Your task to perform on an android device: Open the calendar app, open the side menu, and click the "Day" option Image 0: 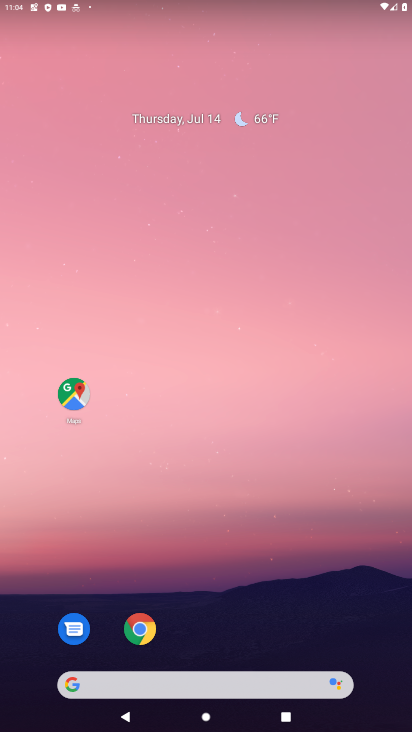
Step 0: press home button
Your task to perform on an android device: Open the calendar app, open the side menu, and click the "Day" option Image 1: 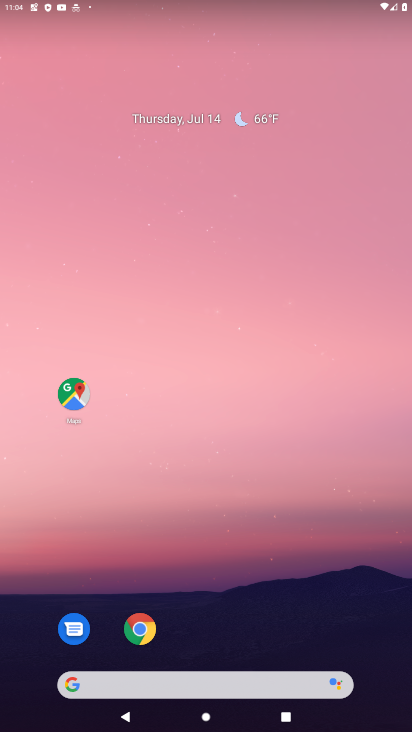
Step 1: drag from (284, 481) to (257, 91)
Your task to perform on an android device: Open the calendar app, open the side menu, and click the "Day" option Image 2: 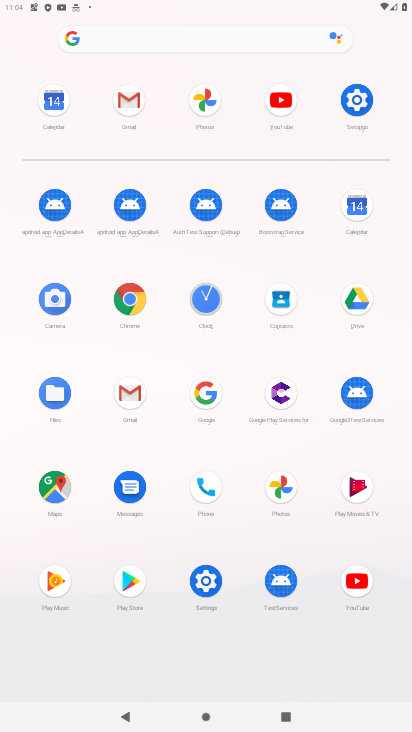
Step 2: click (349, 203)
Your task to perform on an android device: Open the calendar app, open the side menu, and click the "Day" option Image 3: 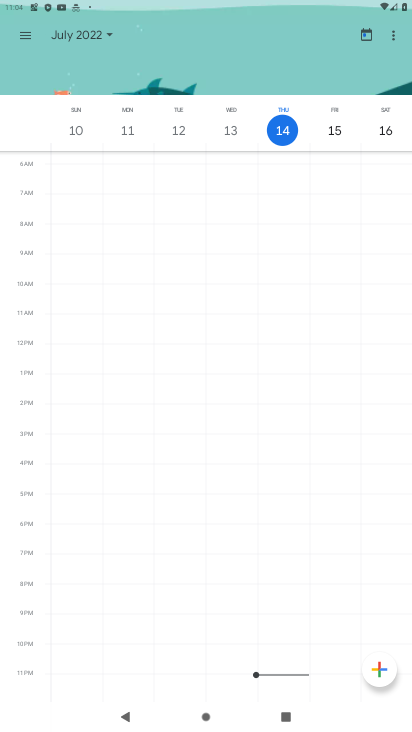
Step 3: click (22, 36)
Your task to perform on an android device: Open the calendar app, open the side menu, and click the "Day" option Image 4: 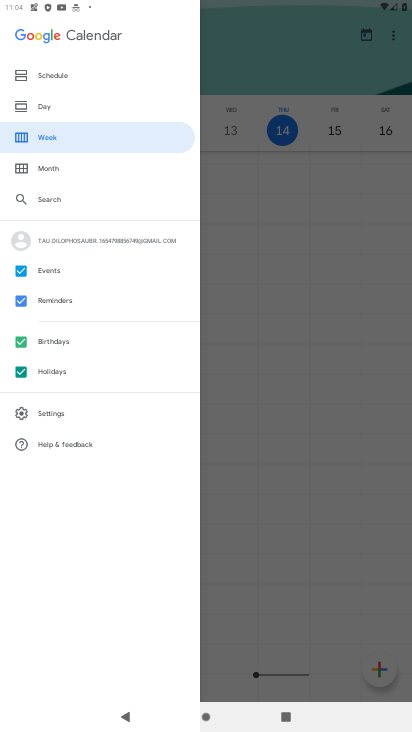
Step 4: click (34, 106)
Your task to perform on an android device: Open the calendar app, open the side menu, and click the "Day" option Image 5: 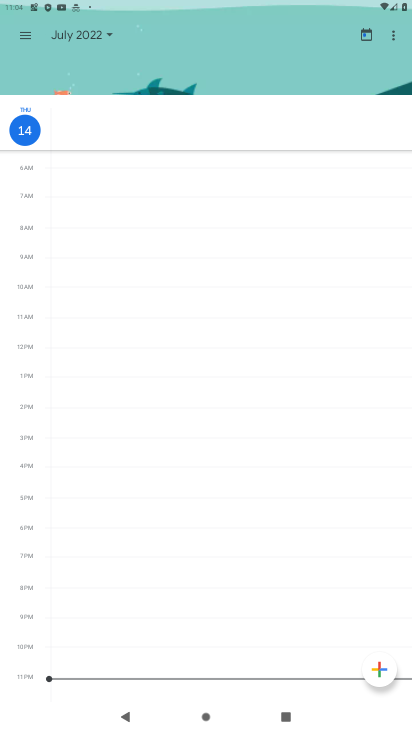
Step 5: task complete